Your task to perform on an android device: Go to Amazon Image 0: 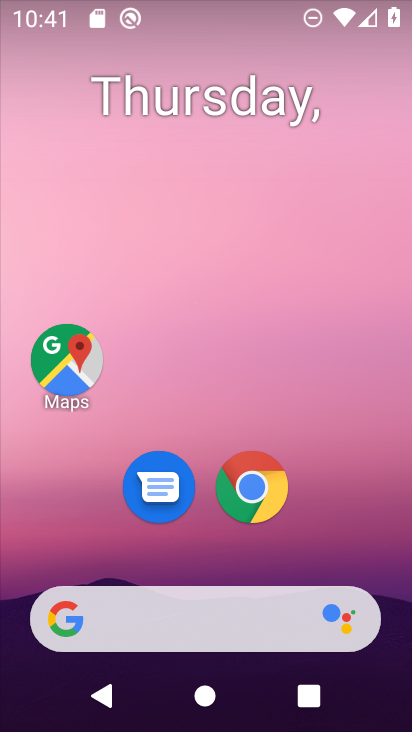
Step 0: click (253, 487)
Your task to perform on an android device: Go to Amazon Image 1: 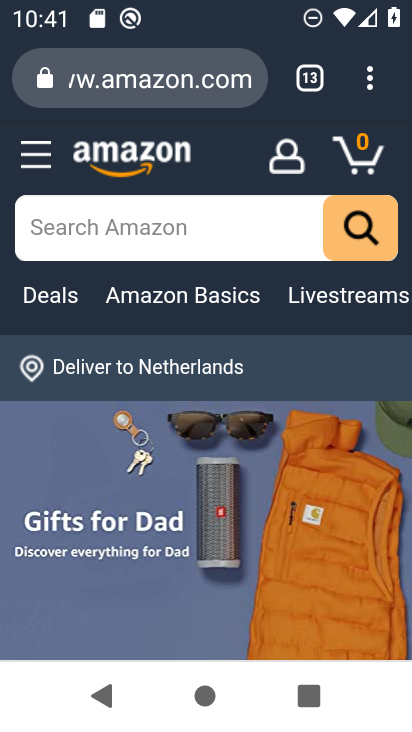
Step 1: task complete